Your task to perform on an android device: turn on the 12-hour format for clock Image 0: 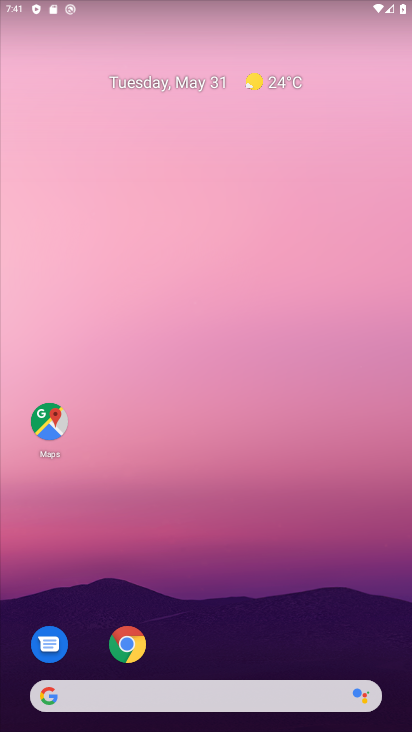
Step 0: drag from (200, 504) to (202, 204)
Your task to perform on an android device: turn on the 12-hour format for clock Image 1: 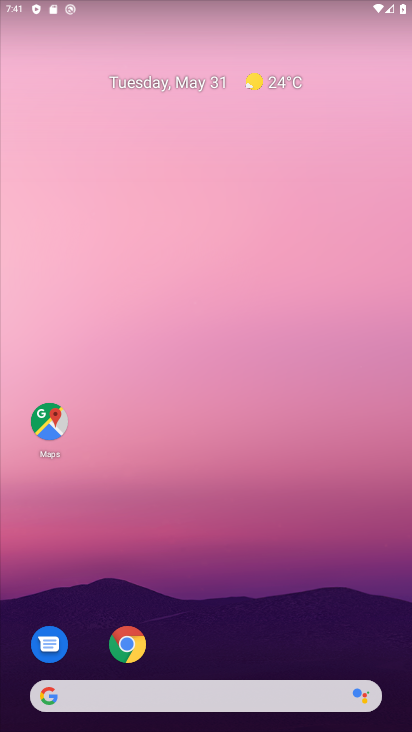
Step 1: drag from (217, 601) to (298, 185)
Your task to perform on an android device: turn on the 12-hour format for clock Image 2: 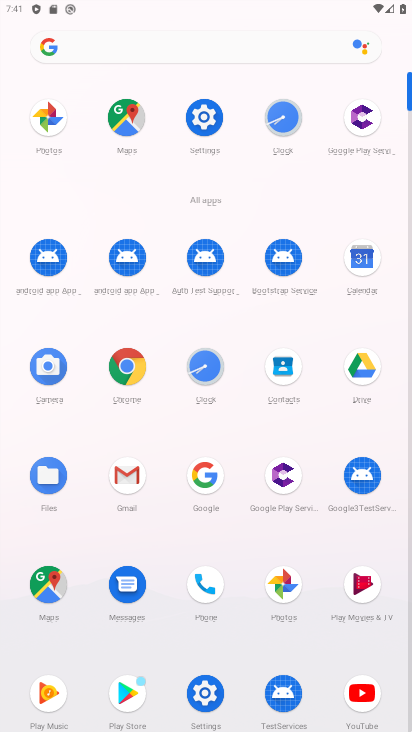
Step 2: click (201, 370)
Your task to perform on an android device: turn on the 12-hour format for clock Image 3: 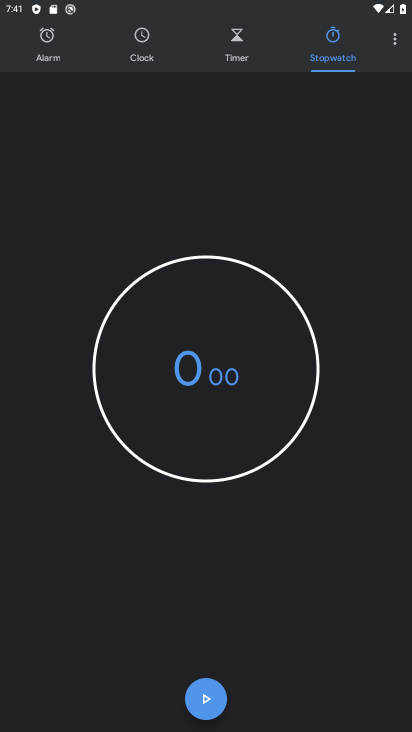
Step 3: click (395, 42)
Your task to perform on an android device: turn on the 12-hour format for clock Image 4: 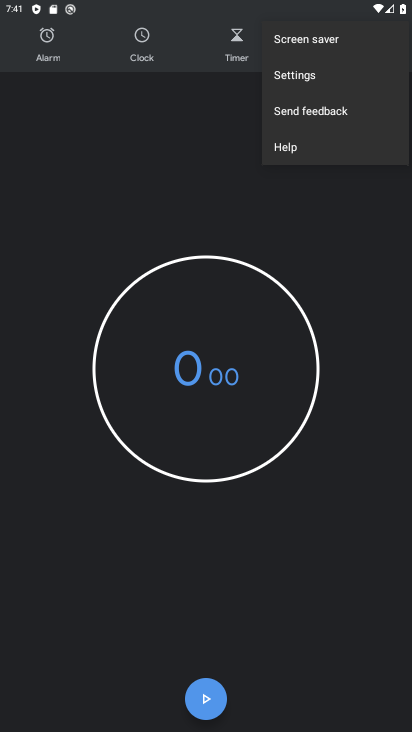
Step 4: click (328, 81)
Your task to perform on an android device: turn on the 12-hour format for clock Image 5: 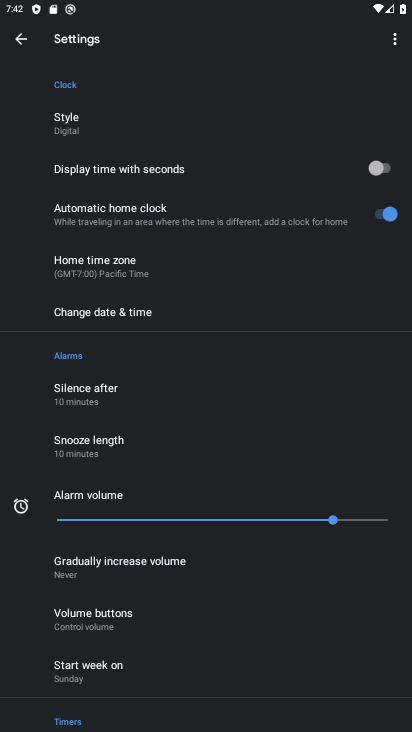
Step 5: click (132, 310)
Your task to perform on an android device: turn on the 12-hour format for clock Image 6: 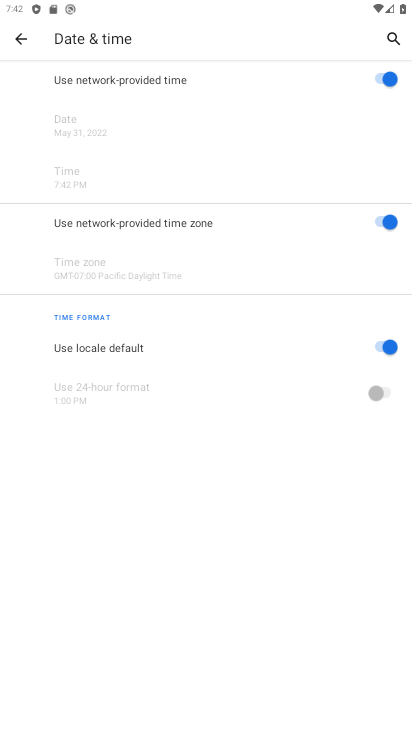
Step 6: task complete